Your task to perform on an android device: Open accessibility settings Image 0: 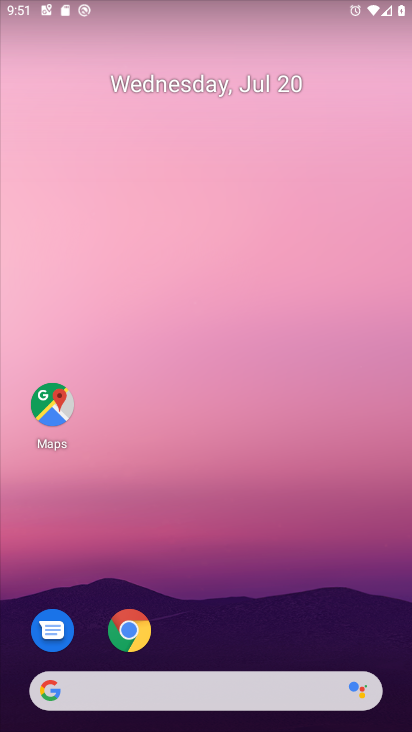
Step 0: drag from (223, 678) to (203, 201)
Your task to perform on an android device: Open accessibility settings Image 1: 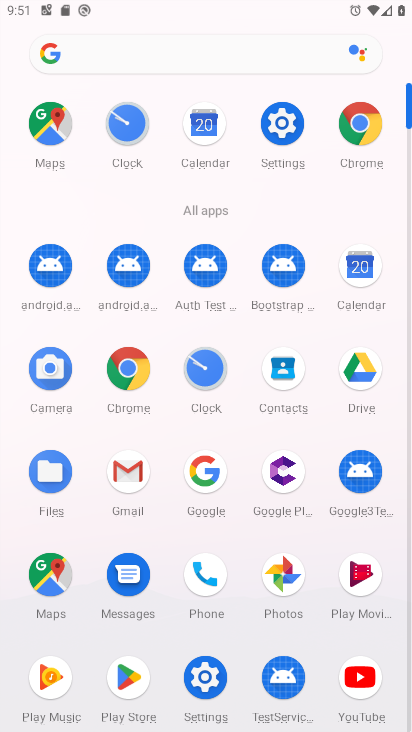
Step 1: click (295, 113)
Your task to perform on an android device: Open accessibility settings Image 2: 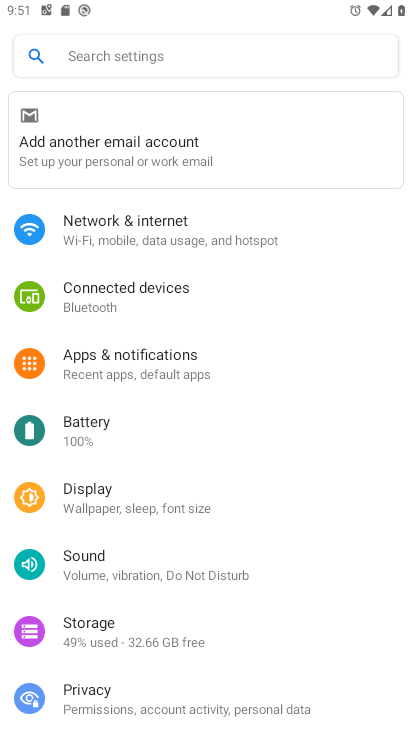
Step 2: drag from (150, 617) to (124, 176)
Your task to perform on an android device: Open accessibility settings Image 3: 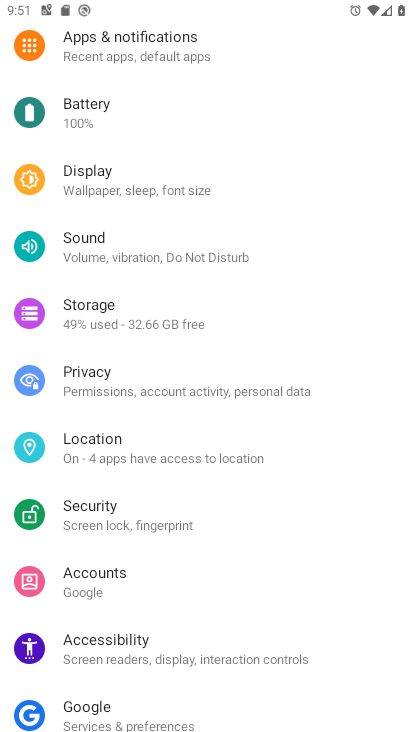
Step 3: click (130, 651)
Your task to perform on an android device: Open accessibility settings Image 4: 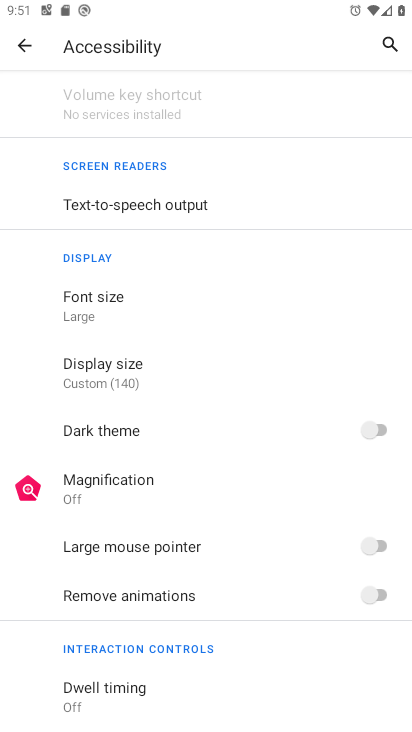
Step 4: task complete